Your task to perform on an android device: toggle notifications settings in the gmail app Image 0: 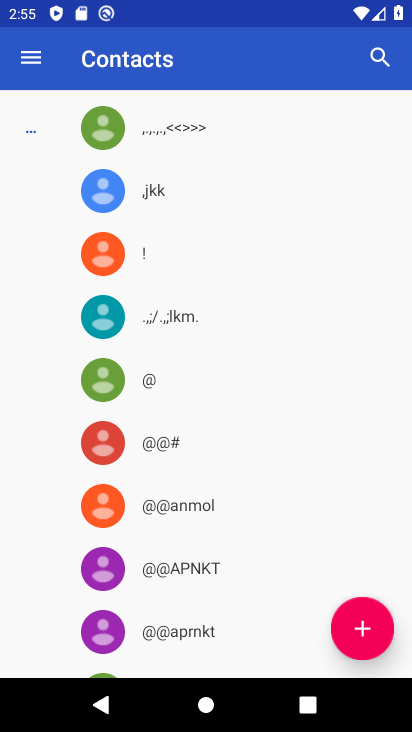
Step 0: press back button
Your task to perform on an android device: toggle notifications settings in the gmail app Image 1: 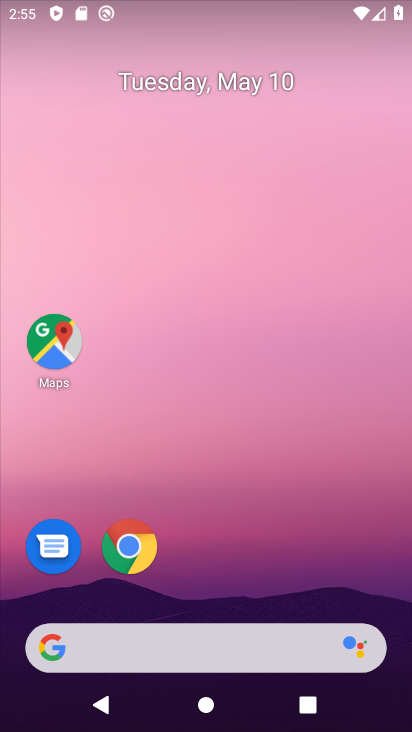
Step 1: drag from (197, 609) to (328, 33)
Your task to perform on an android device: toggle notifications settings in the gmail app Image 2: 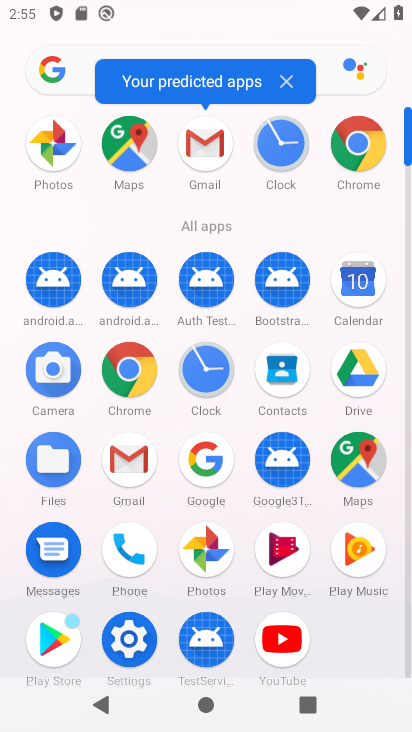
Step 2: click (121, 448)
Your task to perform on an android device: toggle notifications settings in the gmail app Image 3: 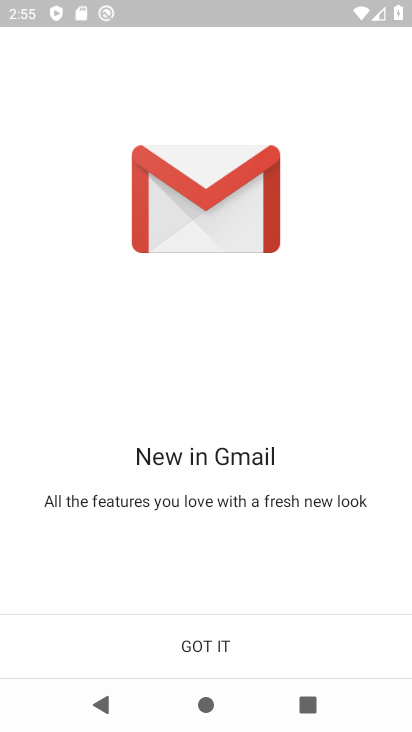
Step 3: click (229, 659)
Your task to perform on an android device: toggle notifications settings in the gmail app Image 4: 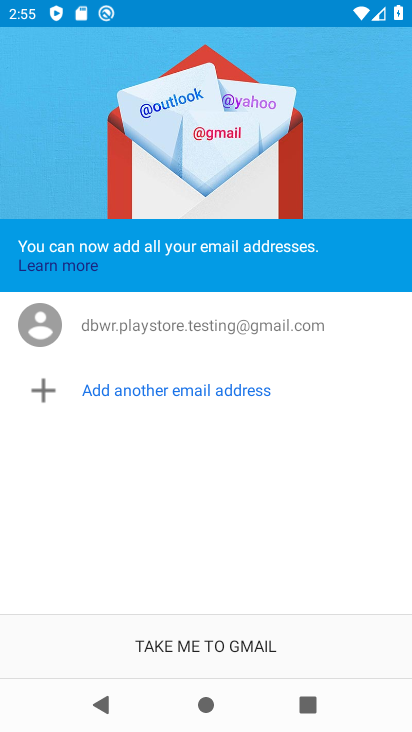
Step 4: click (229, 658)
Your task to perform on an android device: toggle notifications settings in the gmail app Image 5: 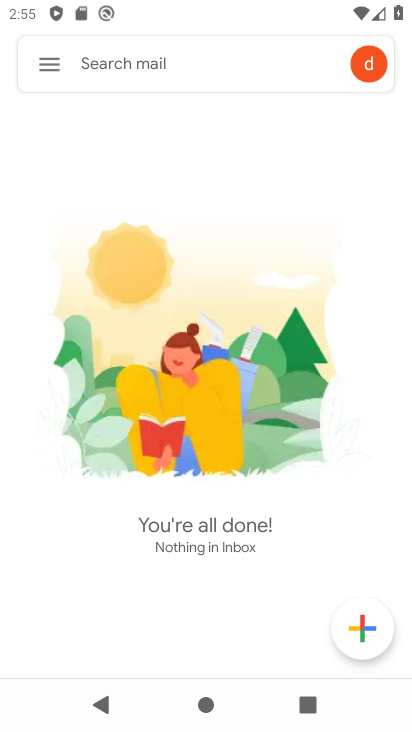
Step 5: click (42, 61)
Your task to perform on an android device: toggle notifications settings in the gmail app Image 6: 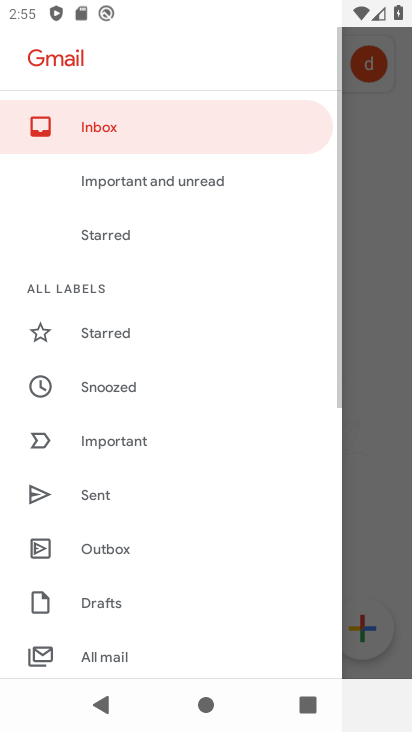
Step 6: drag from (141, 631) to (214, 145)
Your task to perform on an android device: toggle notifications settings in the gmail app Image 7: 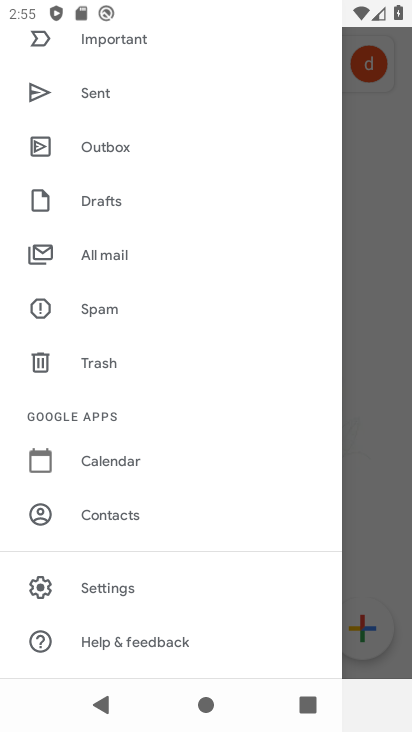
Step 7: click (169, 588)
Your task to perform on an android device: toggle notifications settings in the gmail app Image 8: 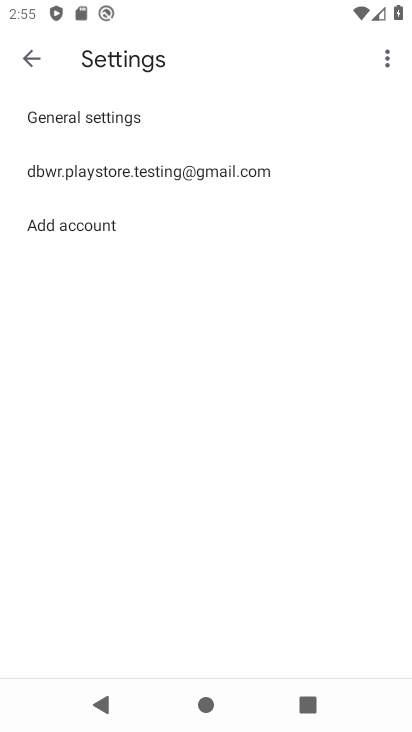
Step 8: click (249, 174)
Your task to perform on an android device: toggle notifications settings in the gmail app Image 9: 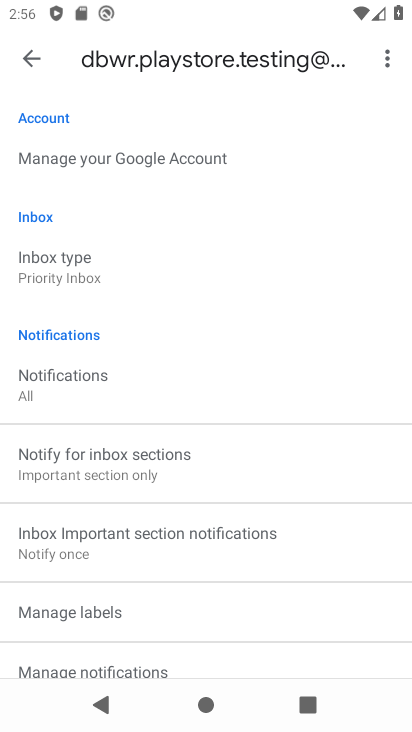
Step 9: drag from (193, 666) to (262, 198)
Your task to perform on an android device: toggle notifications settings in the gmail app Image 10: 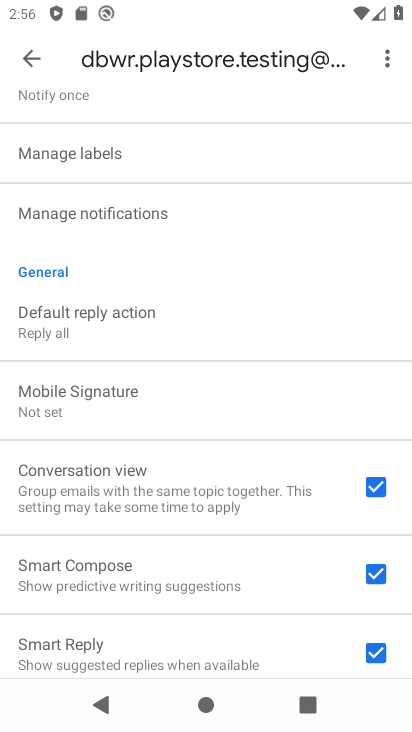
Step 10: click (173, 214)
Your task to perform on an android device: toggle notifications settings in the gmail app Image 11: 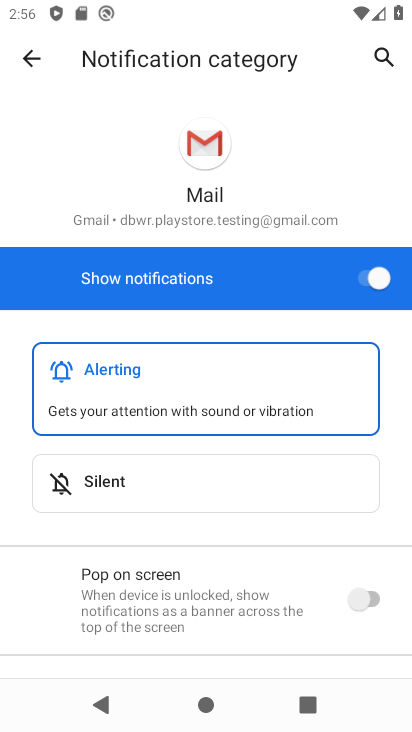
Step 11: click (371, 276)
Your task to perform on an android device: toggle notifications settings in the gmail app Image 12: 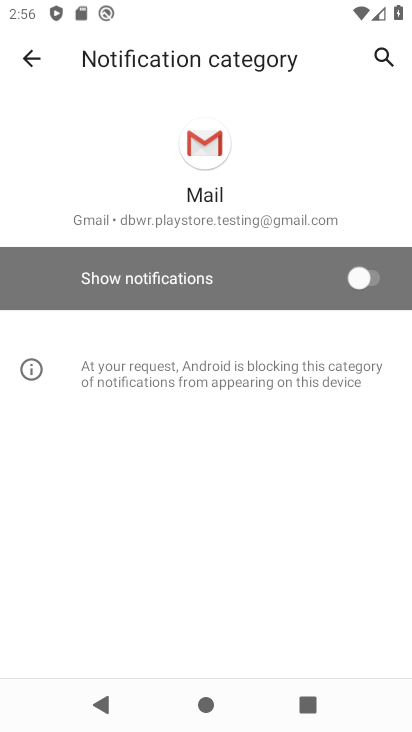
Step 12: task complete